Your task to perform on an android device: turn on bluetooth scan Image 0: 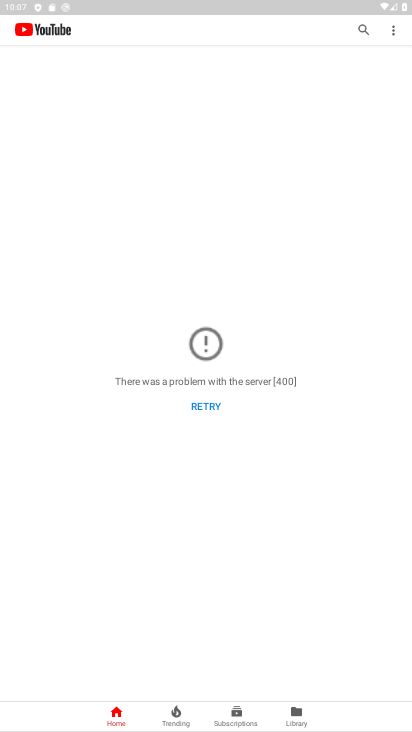
Step 0: press home button
Your task to perform on an android device: turn on bluetooth scan Image 1: 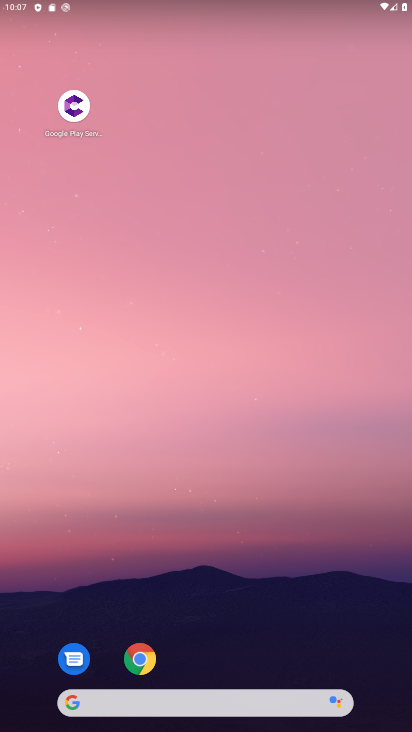
Step 1: drag from (225, 658) to (238, 14)
Your task to perform on an android device: turn on bluetooth scan Image 2: 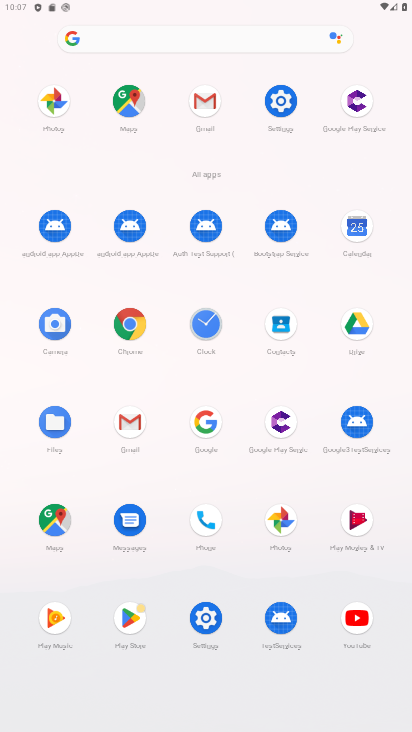
Step 2: click (209, 625)
Your task to perform on an android device: turn on bluetooth scan Image 3: 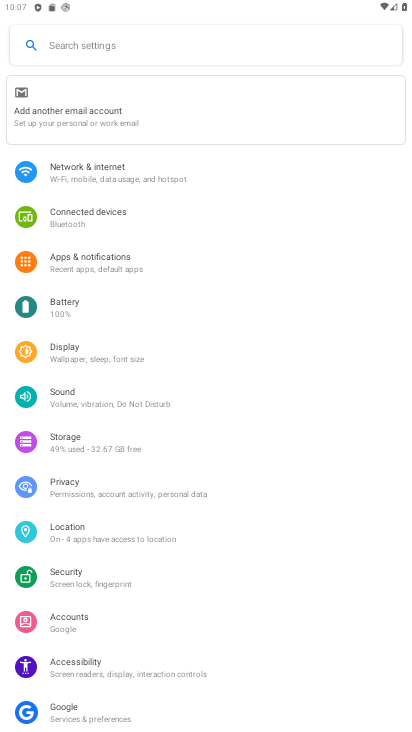
Step 3: click (97, 523)
Your task to perform on an android device: turn on bluetooth scan Image 4: 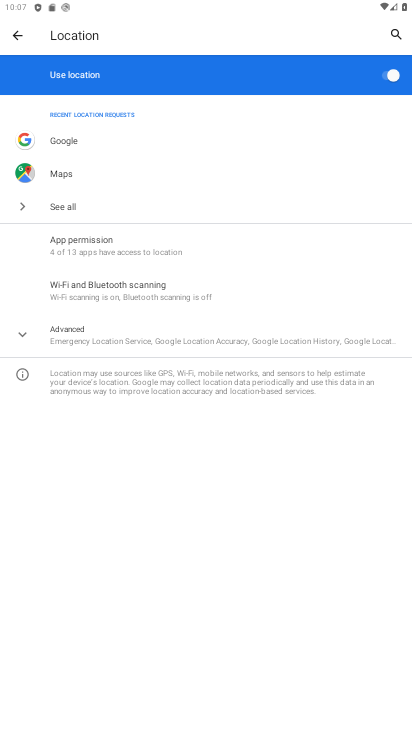
Step 4: click (128, 292)
Your task to perform on an android device: turn on bluetooth scan Image 5: 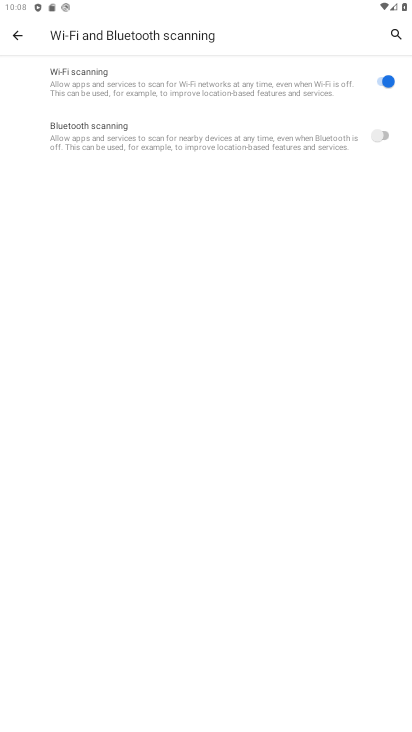
Step 5: click (387, 142)
Your task to perform on an android device: turn on bluetooth scan Image 6: 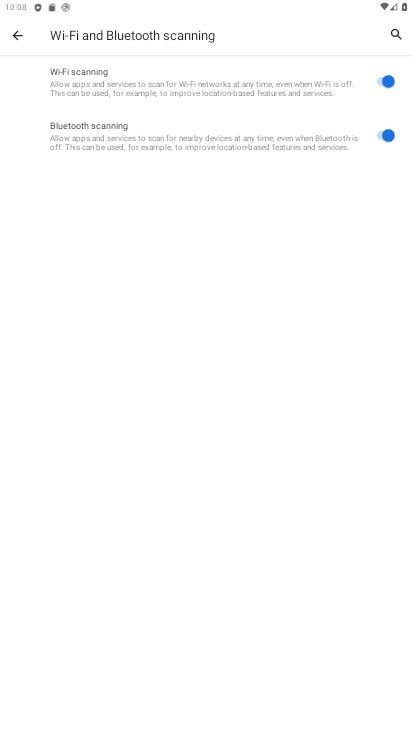
Step 6: task complete